Your task to perform on an android device: What's on my calendar today? Image 0: 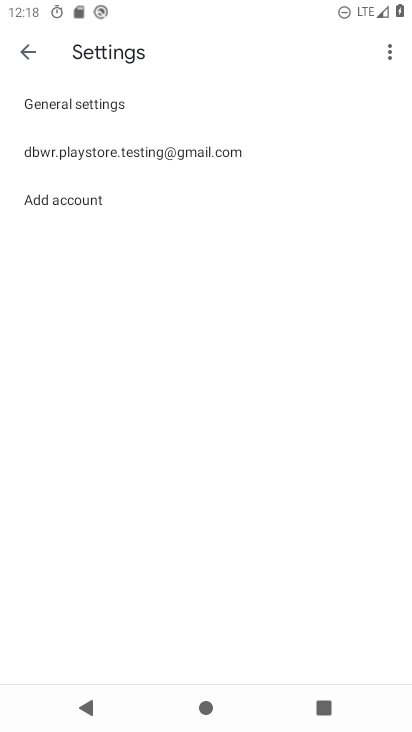
Step 0: press home button
Your task to perform on an android device: What's on my calendar today? Image 1: 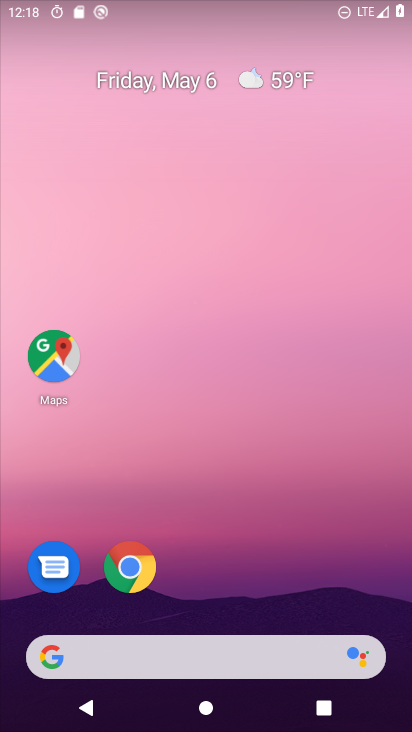
Step 1: drag from (320, 502) to (263, 4)
Your task to perform on an android device: What's on my calendar today? Image 2: 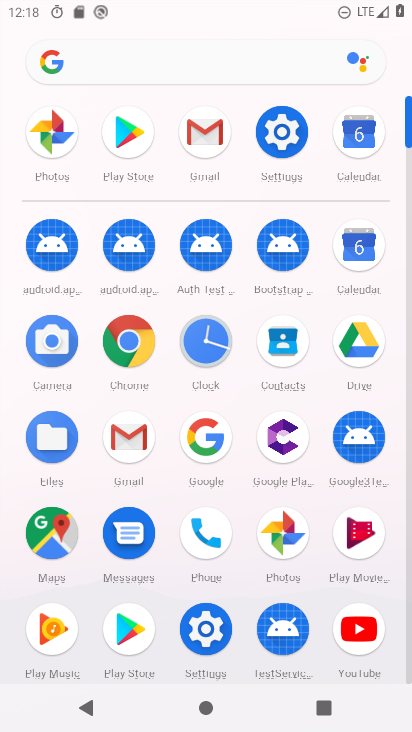
Step 2: click (355, 136)
Your task to perform on an android device: What's on my calendar today? Image 3: 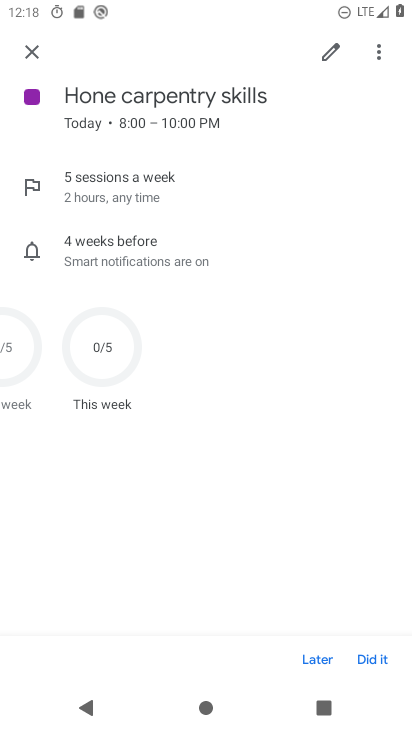
Step 3: click (35, 54)
Your task to perform on an android device: What's on my calendar today? Image 4: 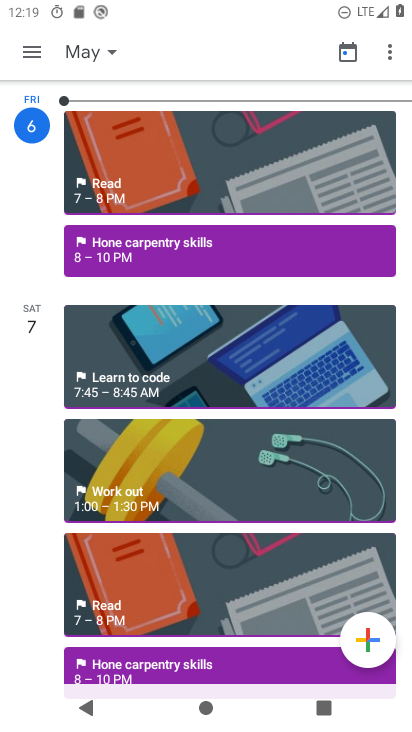
Step 4: click (118, 245)
Your task to perform on an android device: What's on my calendar today? Image 5: 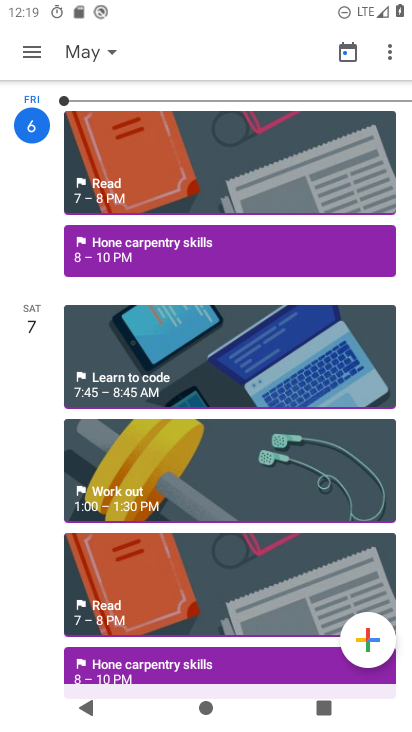
Step 5: click (196, 254)
Your task to perform on an android device: What's on my calendar today? Image 6: 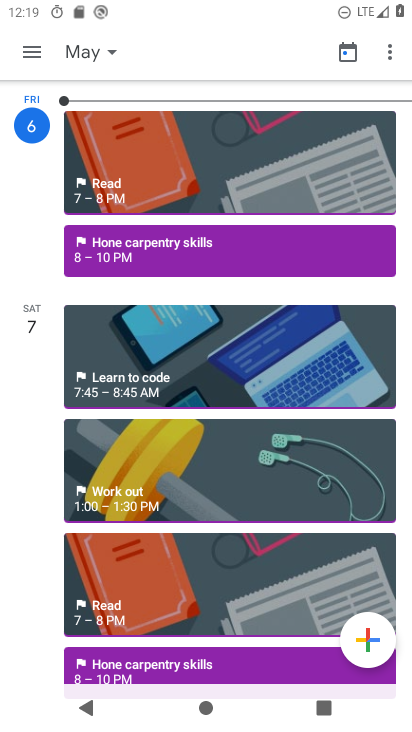
Step 6: click (146, 244)
Your task to perform on an android device: What's on my calendar today? Image 7: 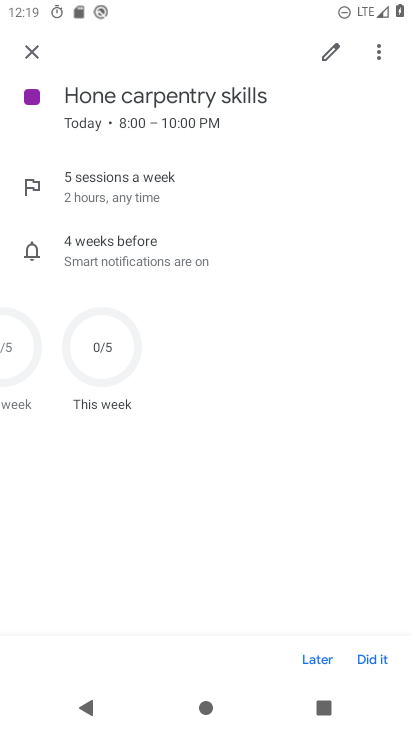
Step 7: task complete